Your task to perform on an android device: change the clock display to show seconds Image 0: 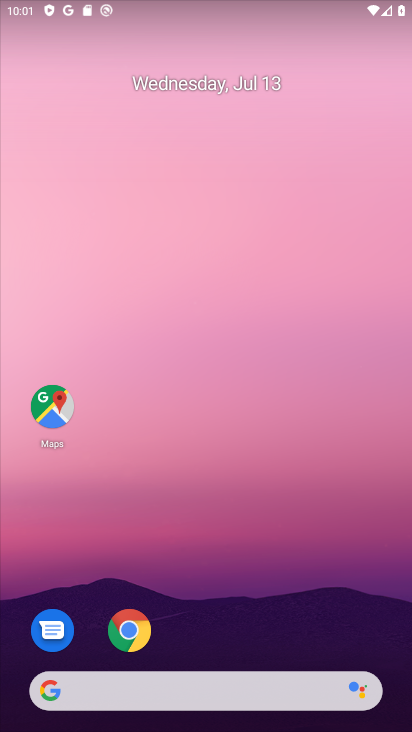
Step 0: drag from (234, 636) to (189, 184)
Your task to perform on an android device: change the clock display to show seconds Image 1: 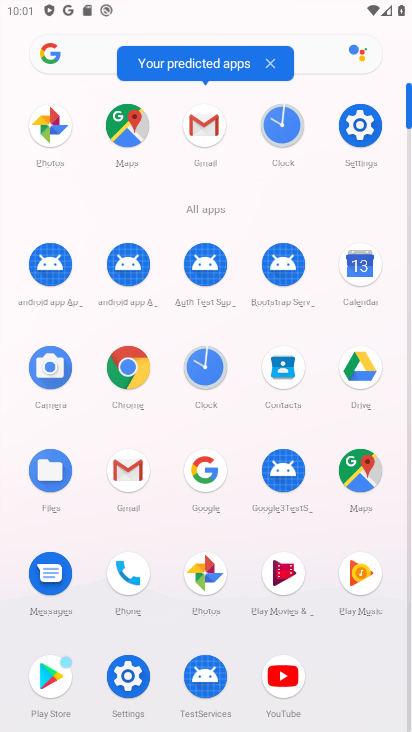
Step 1: click (286, 142)
Your task to perform on an android device: change the clock display to show seconds Image 2: 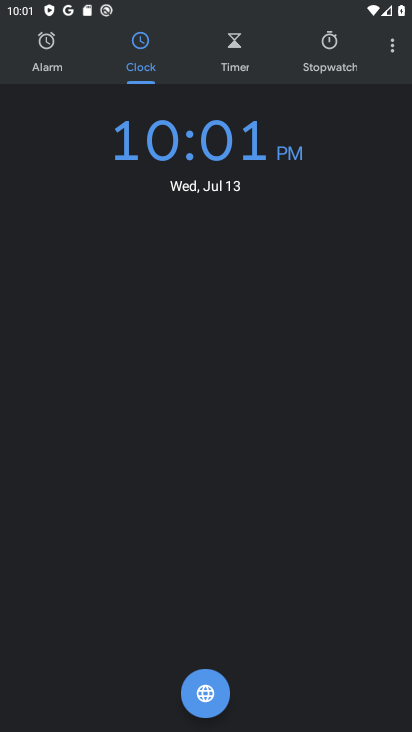
Step 2: click (396, 40)
Your task to perform on an android device: change the clock display to show seconds Image 3: 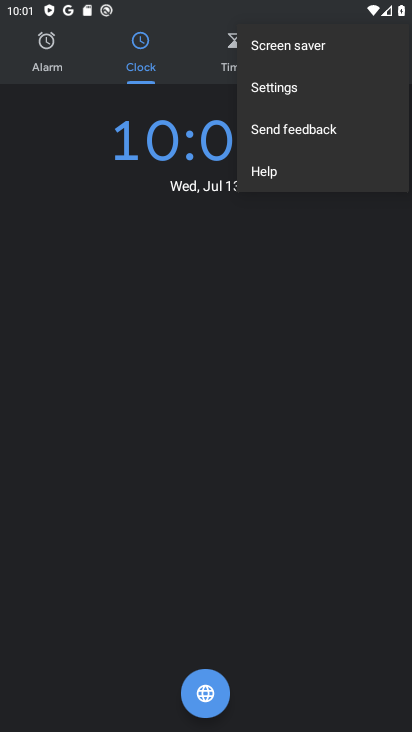
Step 3: click (328, 77)
Your task to perform on an android device: change the clock display to show seconds Image 4: 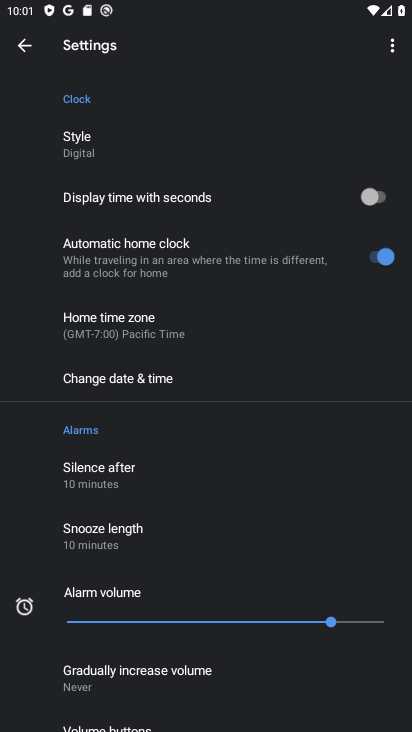
Step 4: click (366, 212)
Your task to perform on an android device: change the clock display to show seconds Image 5: 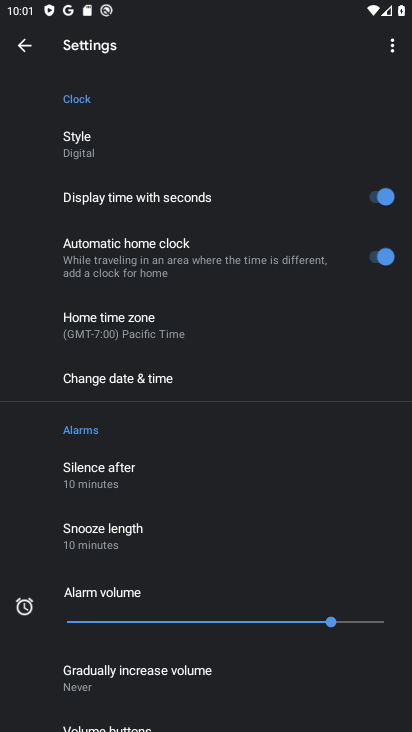
Step 5: task complete